Your task to perform on an android device: see sites visited before in the chrome app Image 0: 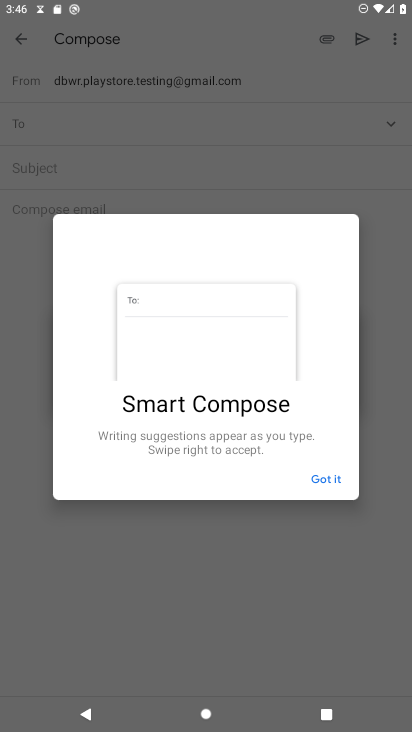
Step 0: press home button
Your task to perform on an android device: see sites visited before in the chrome app Image 1: 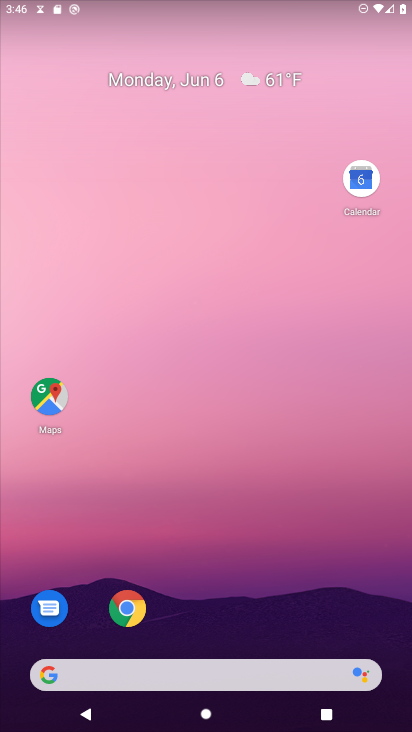
Step 1: click (121, 610)
Your task to perform on an android device: see sites visited before in the chrome app Image 2: 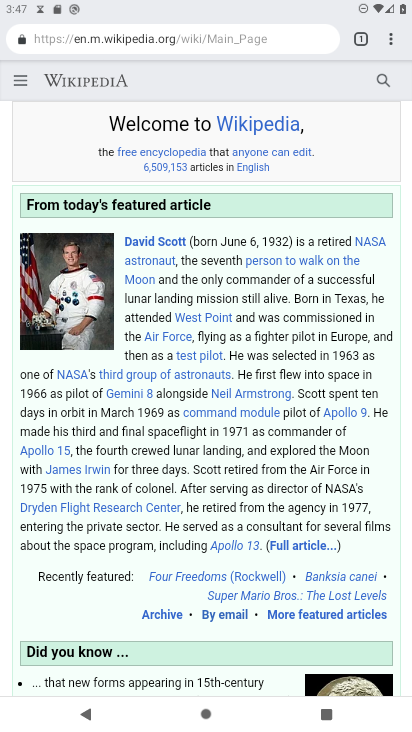
Step 2: click (383, 31)
Your task to perform on an android device: see sites visited before in the chrome app Image 3: 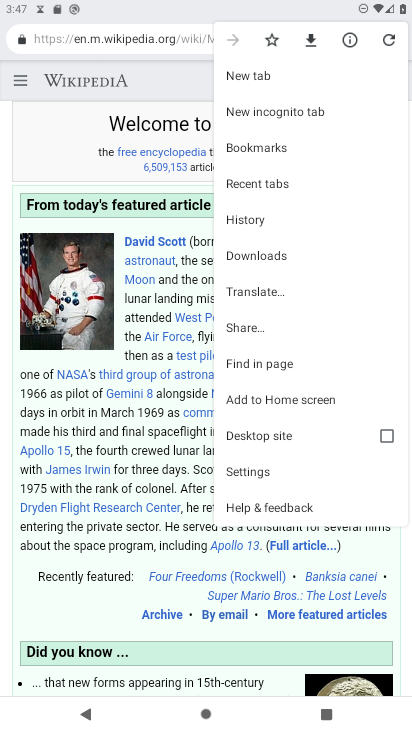
Step 3: click (245, 217)
Your task to perform on an android device: see sites visited before in the chrome app Image 4: 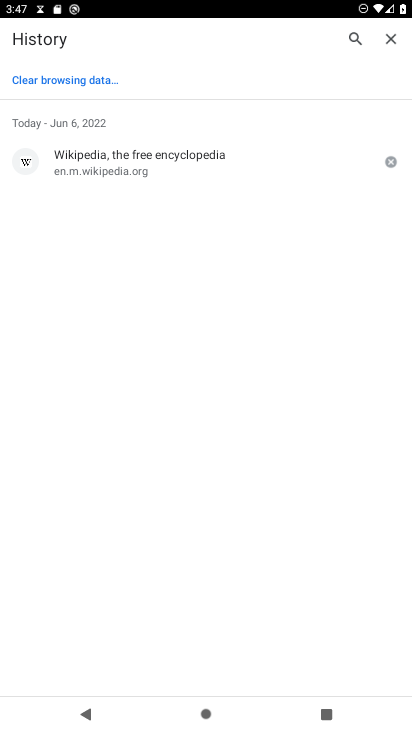
Step 4: task complete